Your task to perform on an android device: Search for pizza restaurants on Maps Image 0: 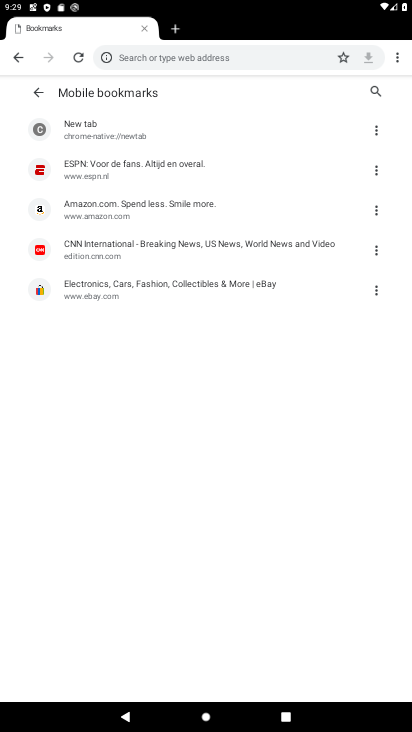
Step 0: press home button
Your task to perform on an android device: Search for pizza restaurants on Maps Image 1: 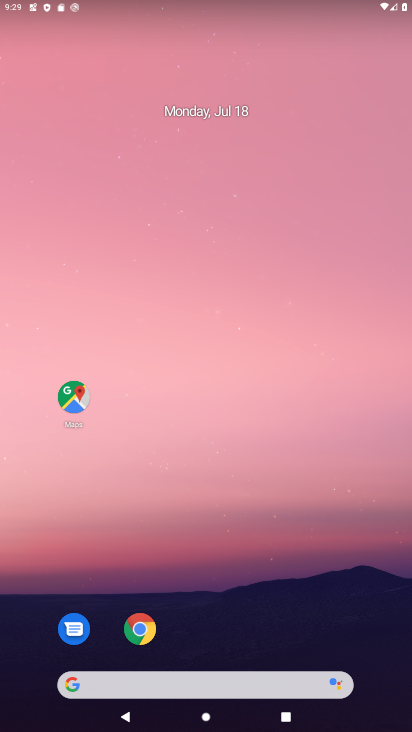
Step 1: drag from (306, 604) to (215, 92)
Your task to perform on an android device: Search for pizza restaurants on Maps Image 2: 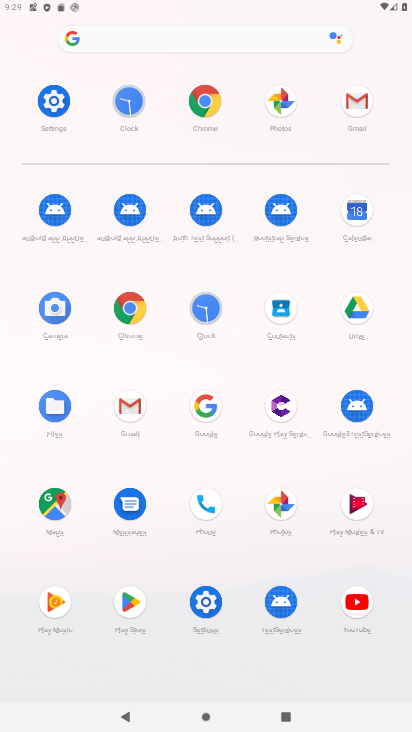
Step 2: click (59, 510)
Your task to perform on an android device: Search for pizza restaurants on Maps Image 3: 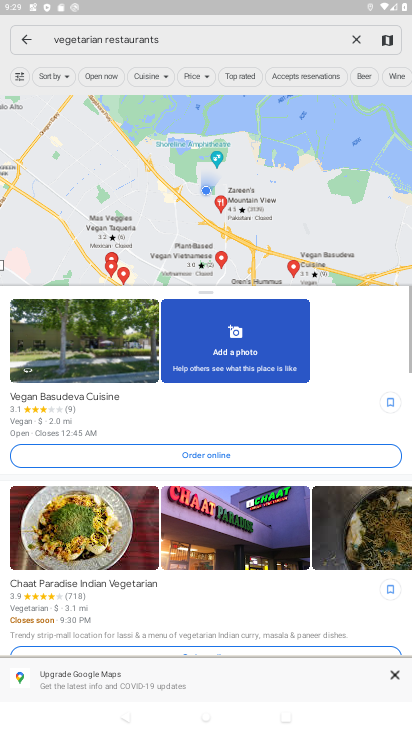
Step 3: click (358, 38)
Your task to perform on an android device: Search for pizza restaurants on Maps Image 4: 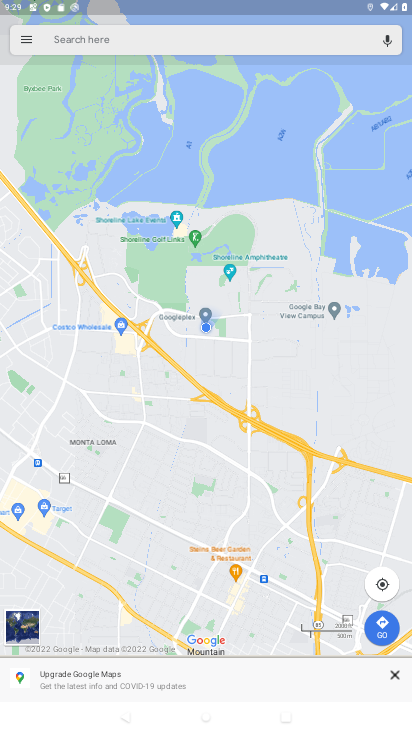
Step 4: click (305, 38)
Your task to perform on an android device: Search for pizza restaurants on Maps Image 5: 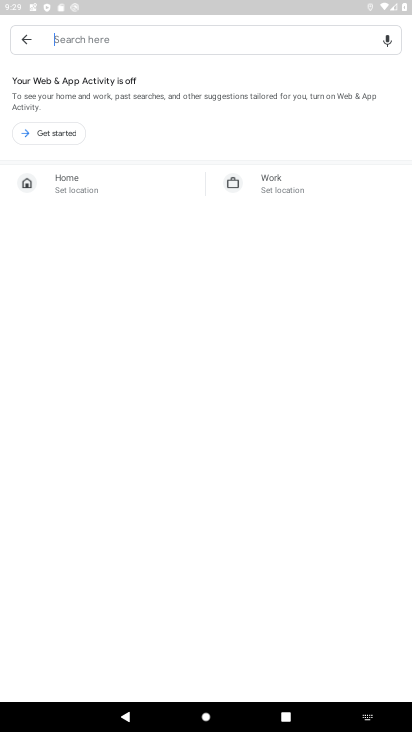
Step 5: type "pizz"
Your task to perform on an android device: Search for pizza restaurants on Maps Image 6: 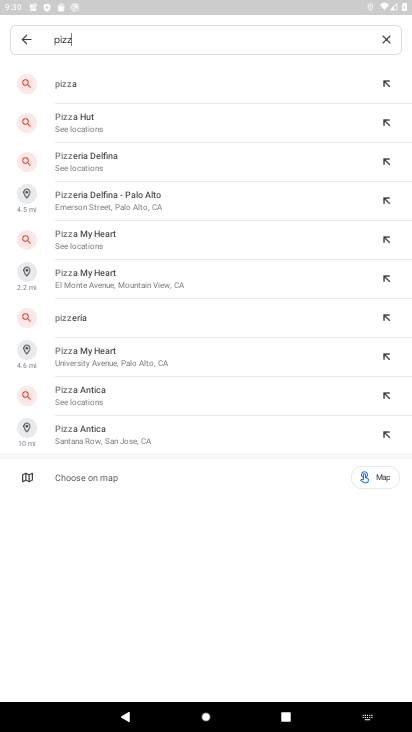
Step 6: type "pizza restaurants"
Your task to perform on an android device: Search for pizza restaurants on Maps Image 7: 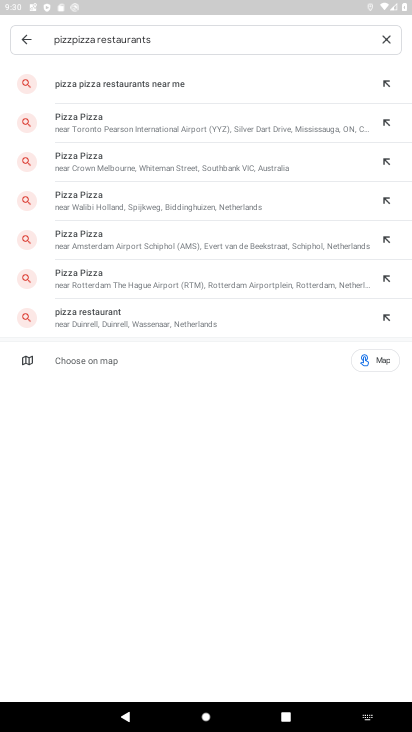
Step 7: press enter
Your task to perform on an android device: Search for pizza restaurants on Maps Image 8: 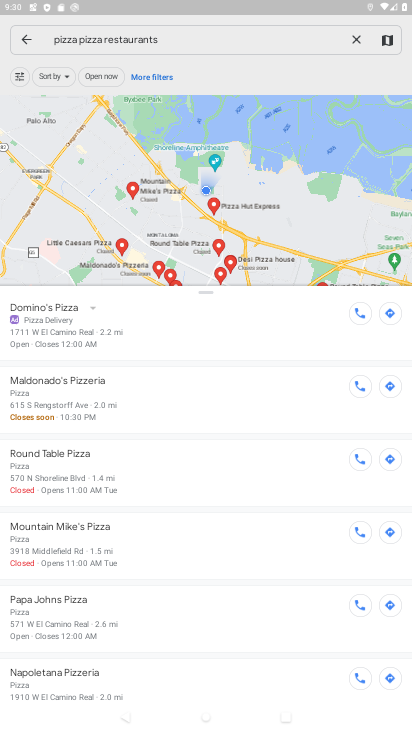
Step 8: task complete